Your task to perform on an android device: Clear all items from cart on amazon.com. Search for lg ultragear on amazon.com, select the first entry, add it to the cart, then select checkout. Image 0: 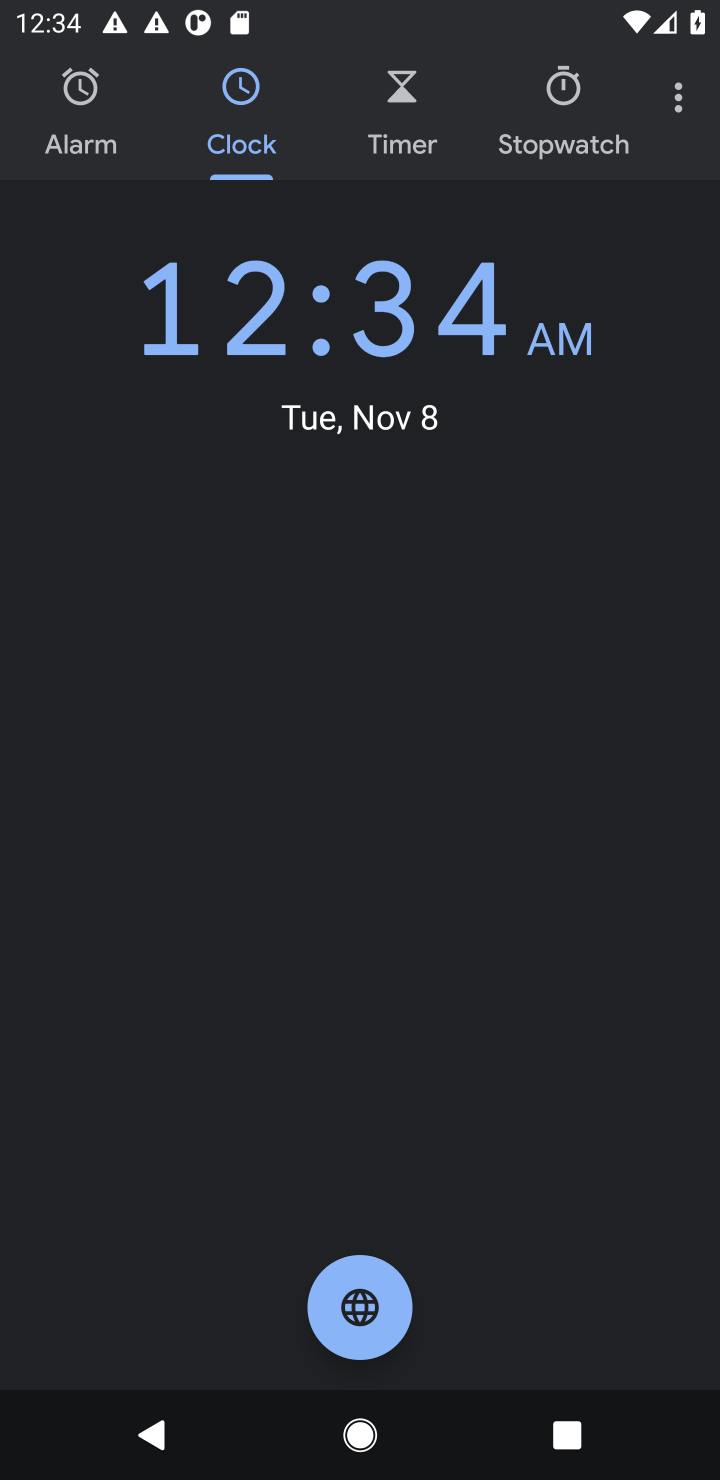
Step 0: press home button
Your task to perform on an android device: Clear all items from cart on amazon.com. Search for lg ultragear on amazon.com, select the first entry, add it to the cart, then select checkout. Image 1: 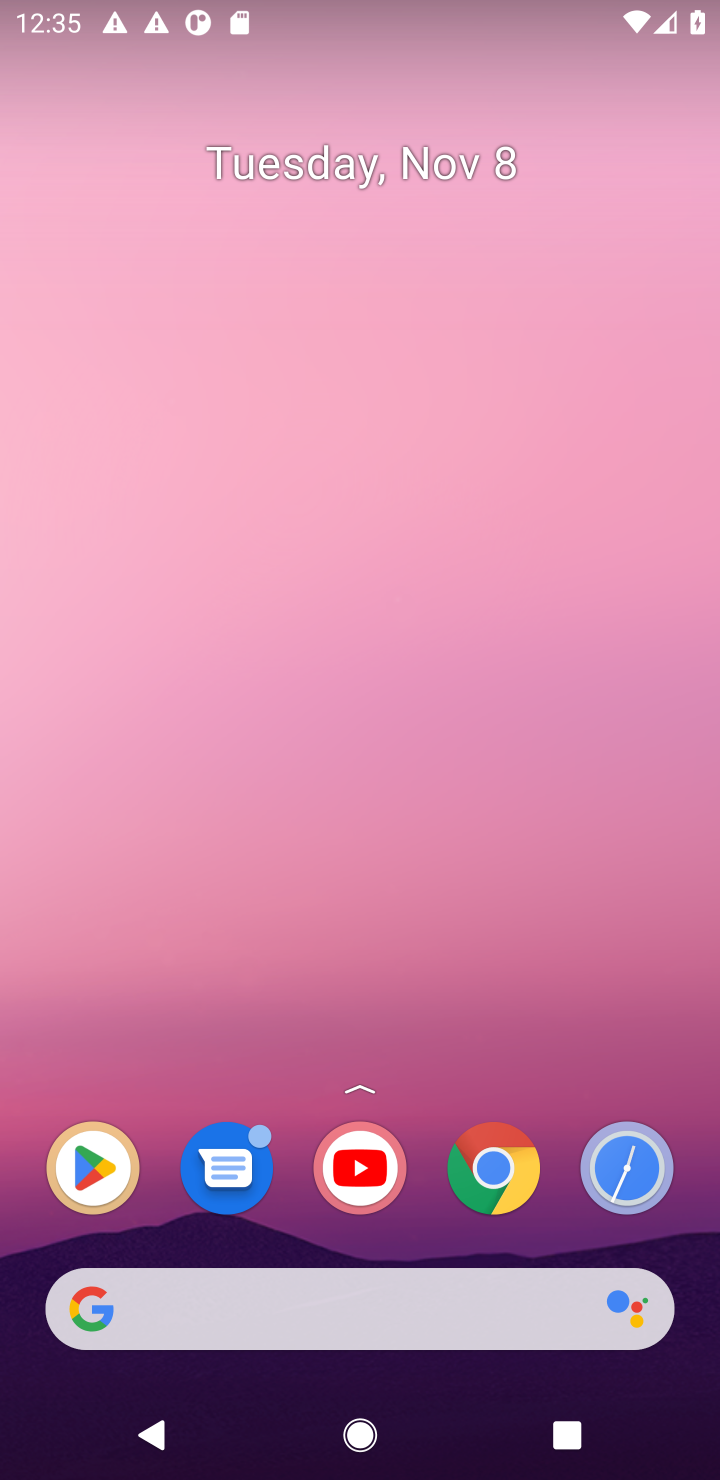
Step 1: drag from (290, 1220) to (203, 154)
Your task to perform on an android device: Clear all items from cart on amazon.com. Search for lg ultragear on amazon.com, select the first entry, add it to the cart, then select checkout. Image 2: 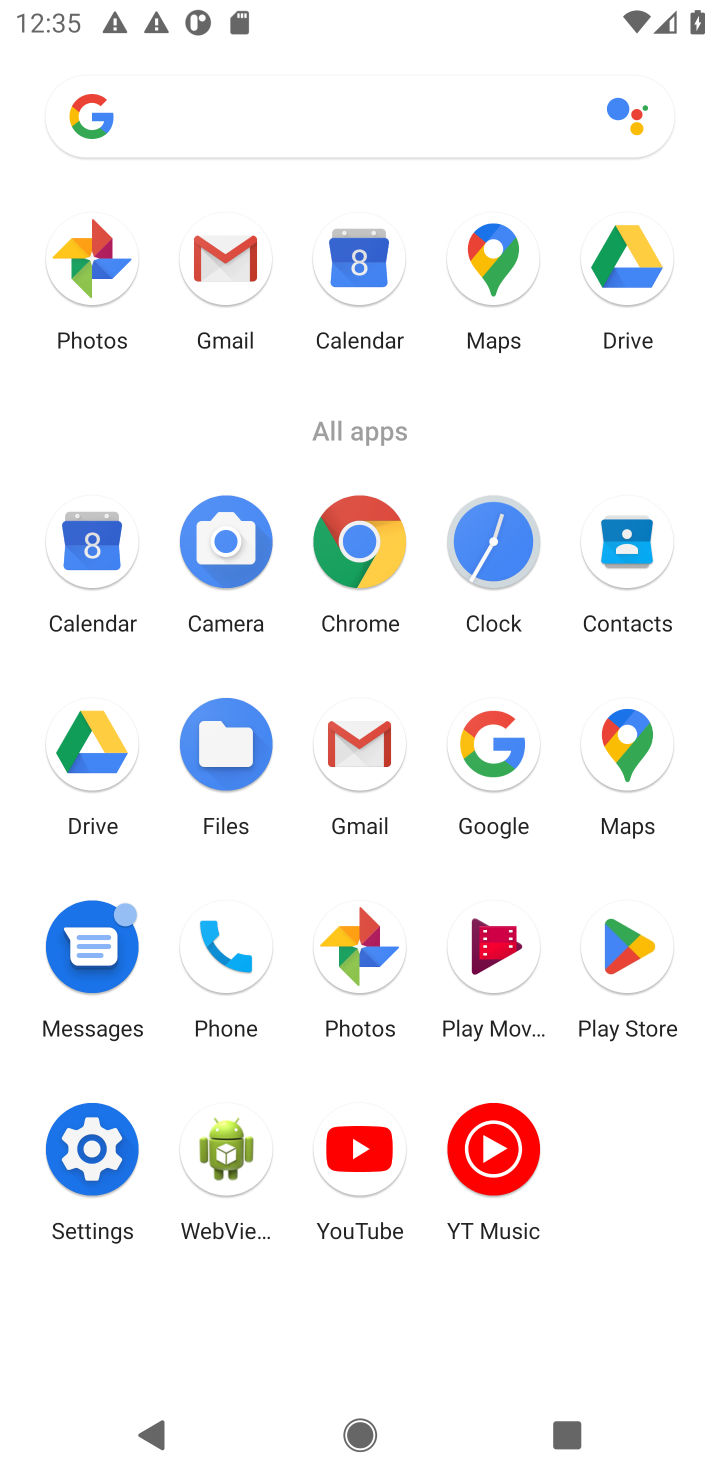
Step 2: click (359, 555)
Your task to perform on an android device: Clear all items from cart on amazon.com. Search for lg ultragear on amazon.com, select the first entry, add it to the cart, then select checkout. Image 3: 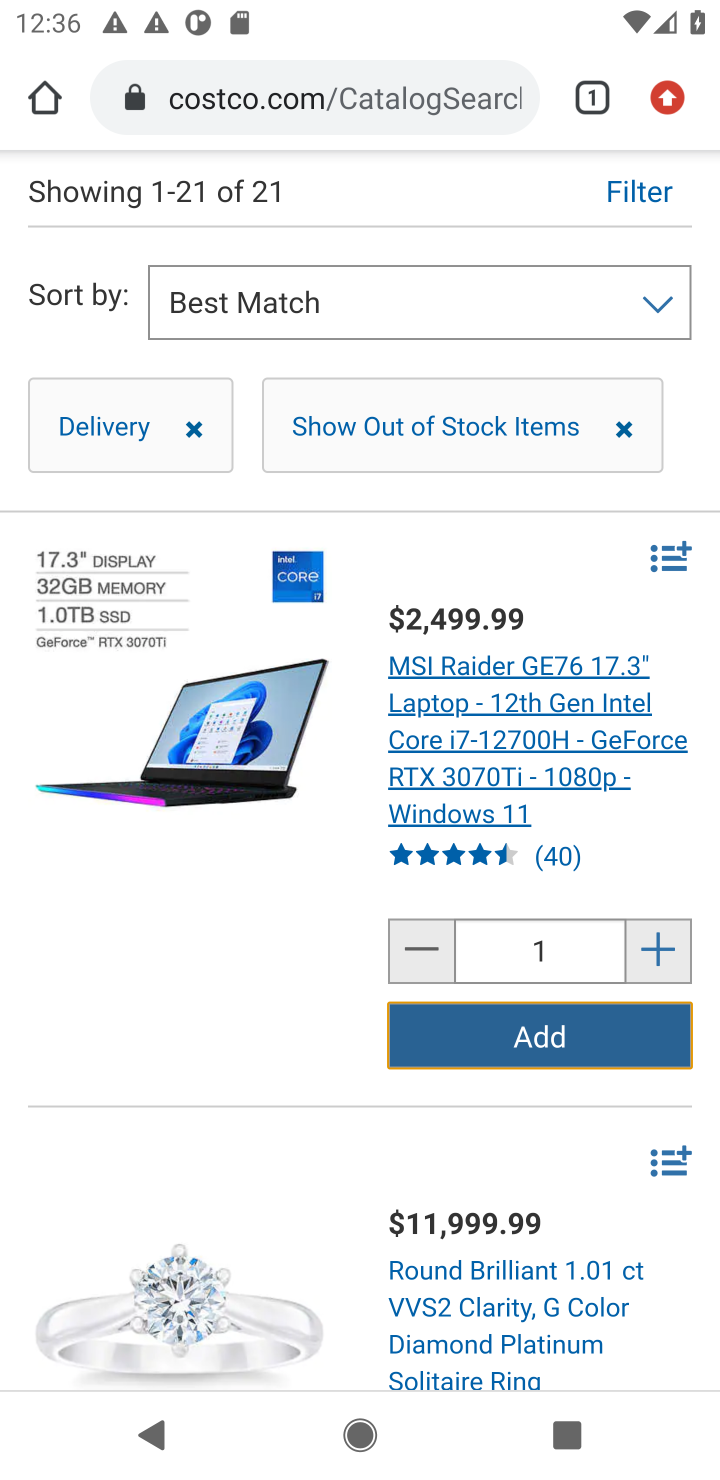
Step 3: press back button
Your task to perform on an android device: Clear all items from cart on amazon.com. Search for lg ultragear on amazon.com, select the first entry, add it to the cart, then select checkout. Image 4: 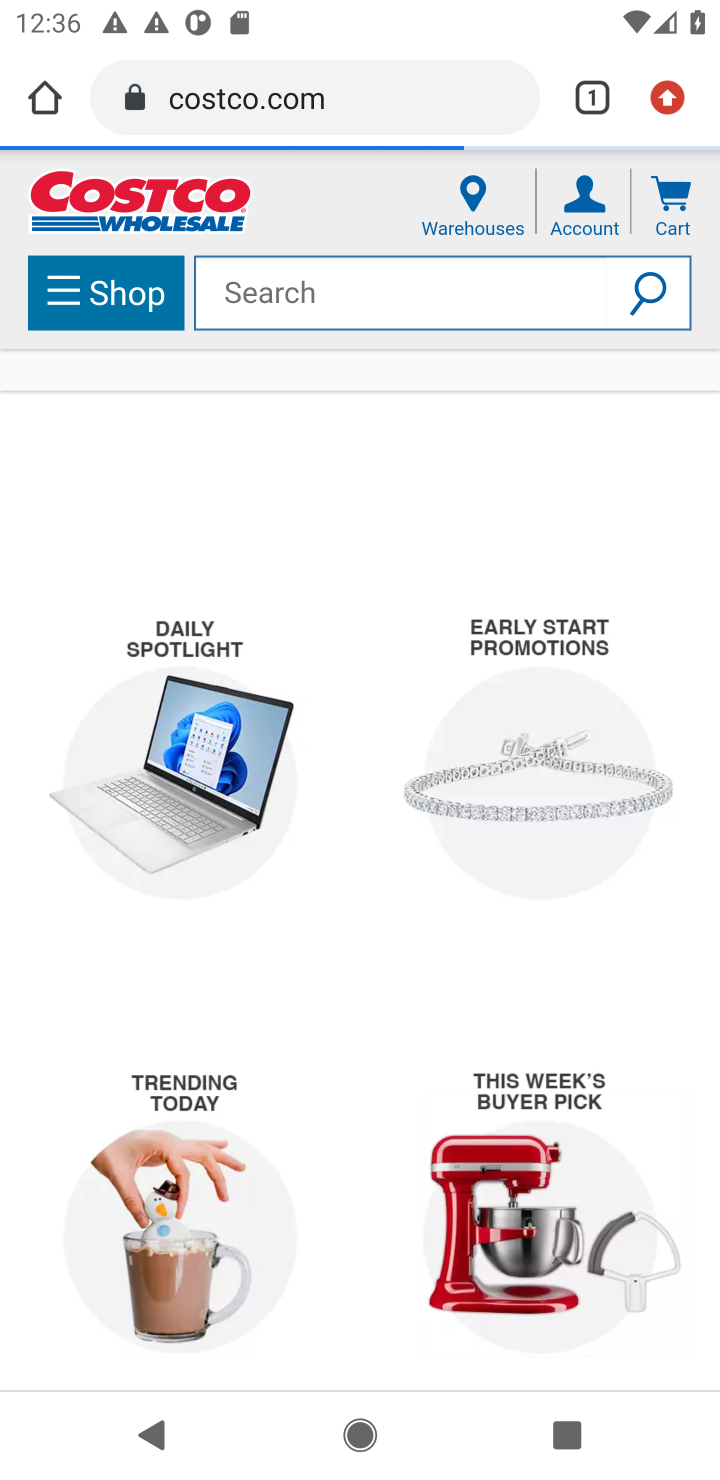
Step 4: click (307, 107)
Your task to perform on an android device: Clear all items from cart on amazon.com. Search for lg ultragear on amazon.com, select the first entry, add it to the cart, then select checkout. Image 5: 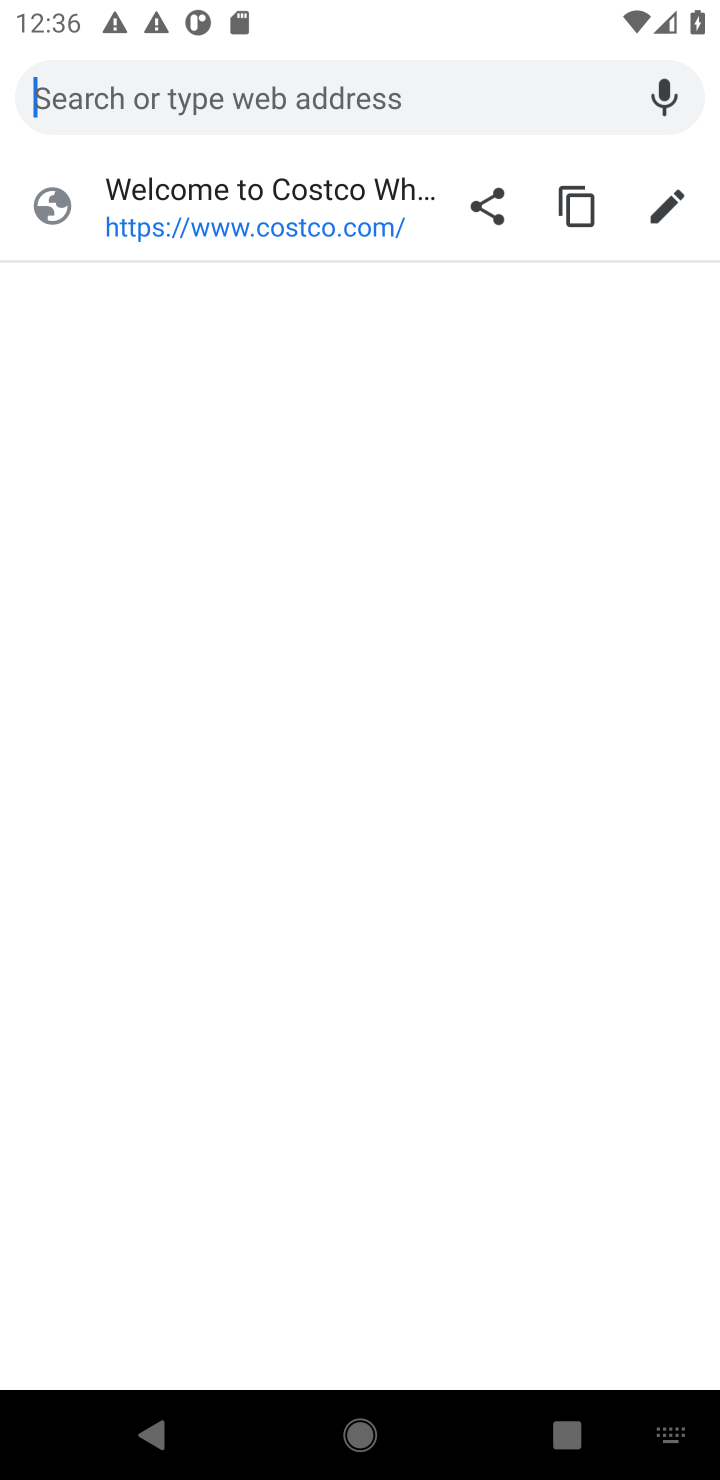
Step 5: type " amazon.com."
Your task to perform on an android device: Clear all items from cart on amazon.com. Search for lg ultragear on amazon.com, select the first entry, add it to the cart, then select checkout. Image 6: 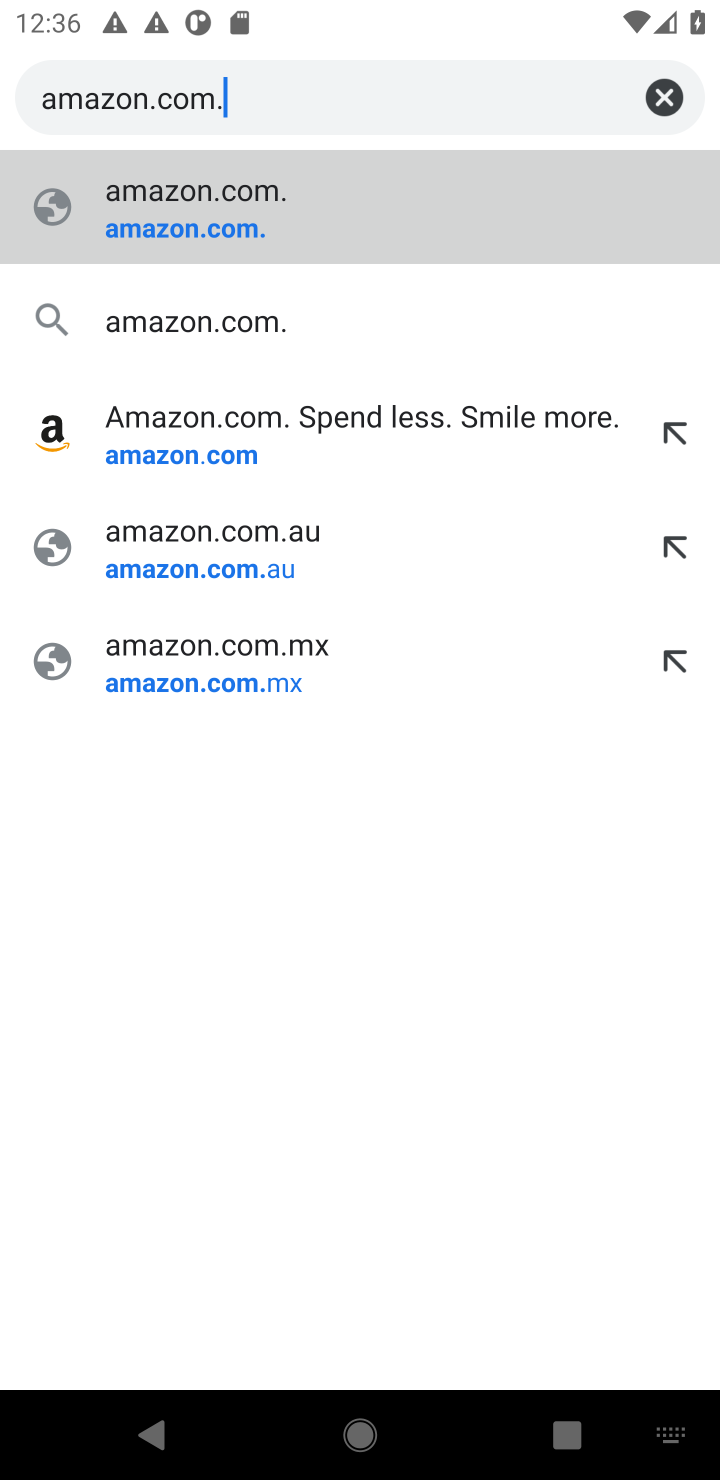
Step 6: press enter
Your task to perform on an android device: Clear all items from cart on amazon.com. Search for lg ultragear on amazon.com, select the first entry, add it to the cart, then select checkout. Image 7: 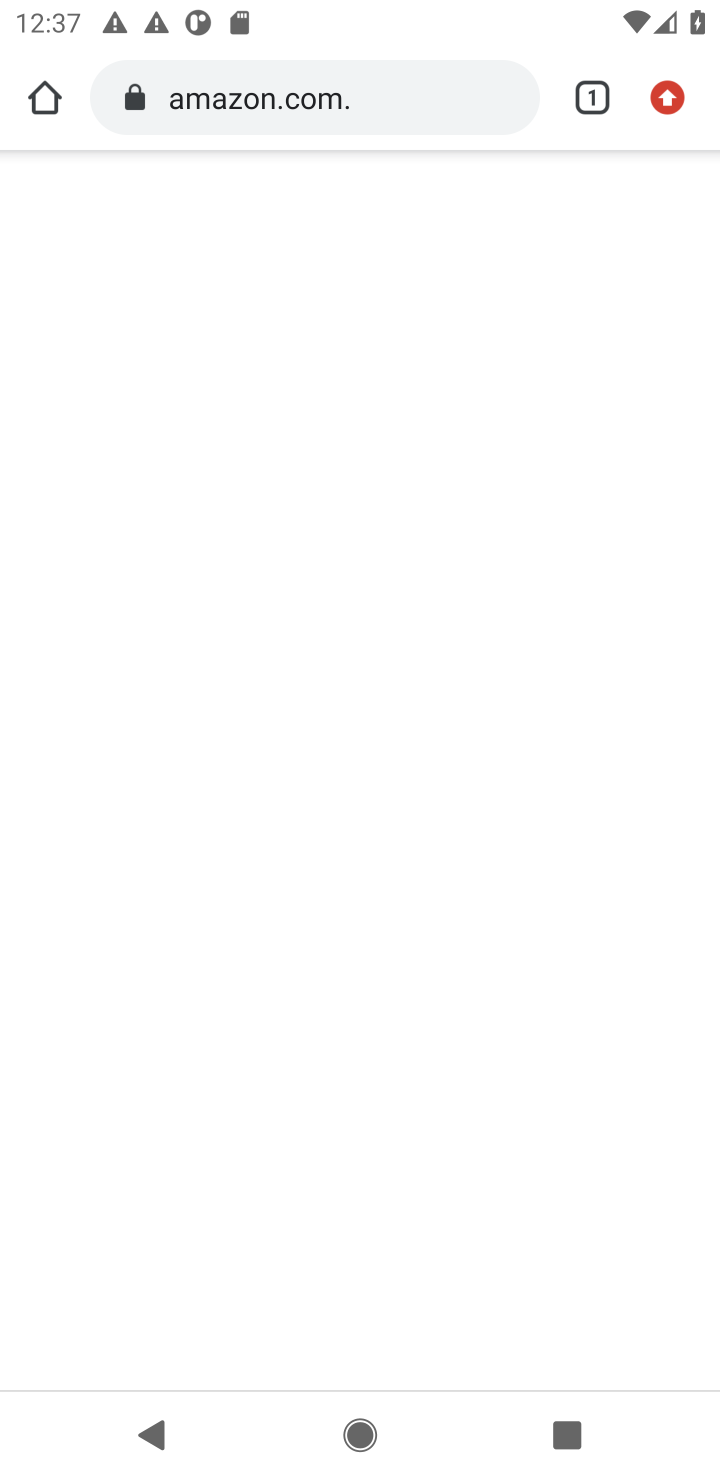
Step 7: press enter
Your task to perform on an android device: Clear all items from cart on amazon.com. Search for lg ultragear on amazon.com, select the first entry, add it to the cart, then select checkout. Image 8: 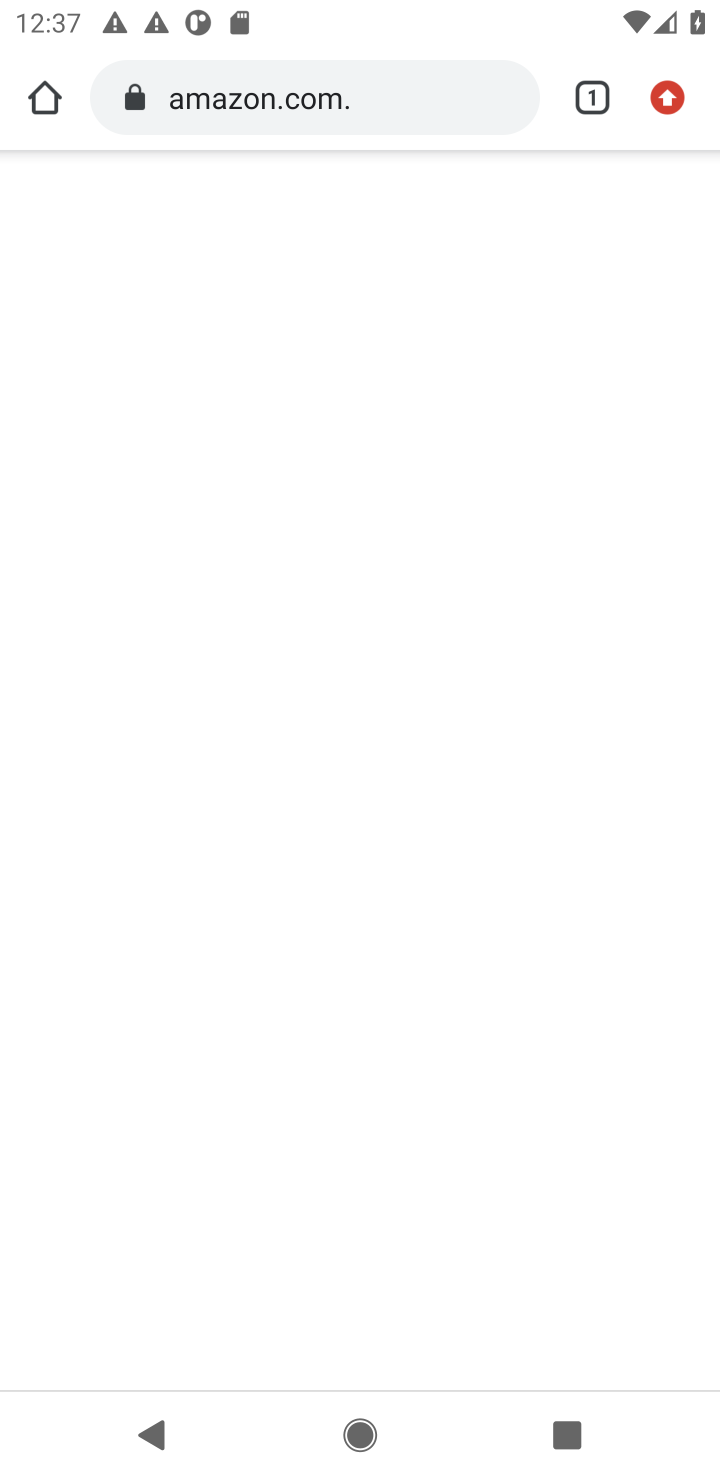
Step 8: task complete